Your task to perform on an android device: install app "DoorDash - Food Delivery" Image 0: 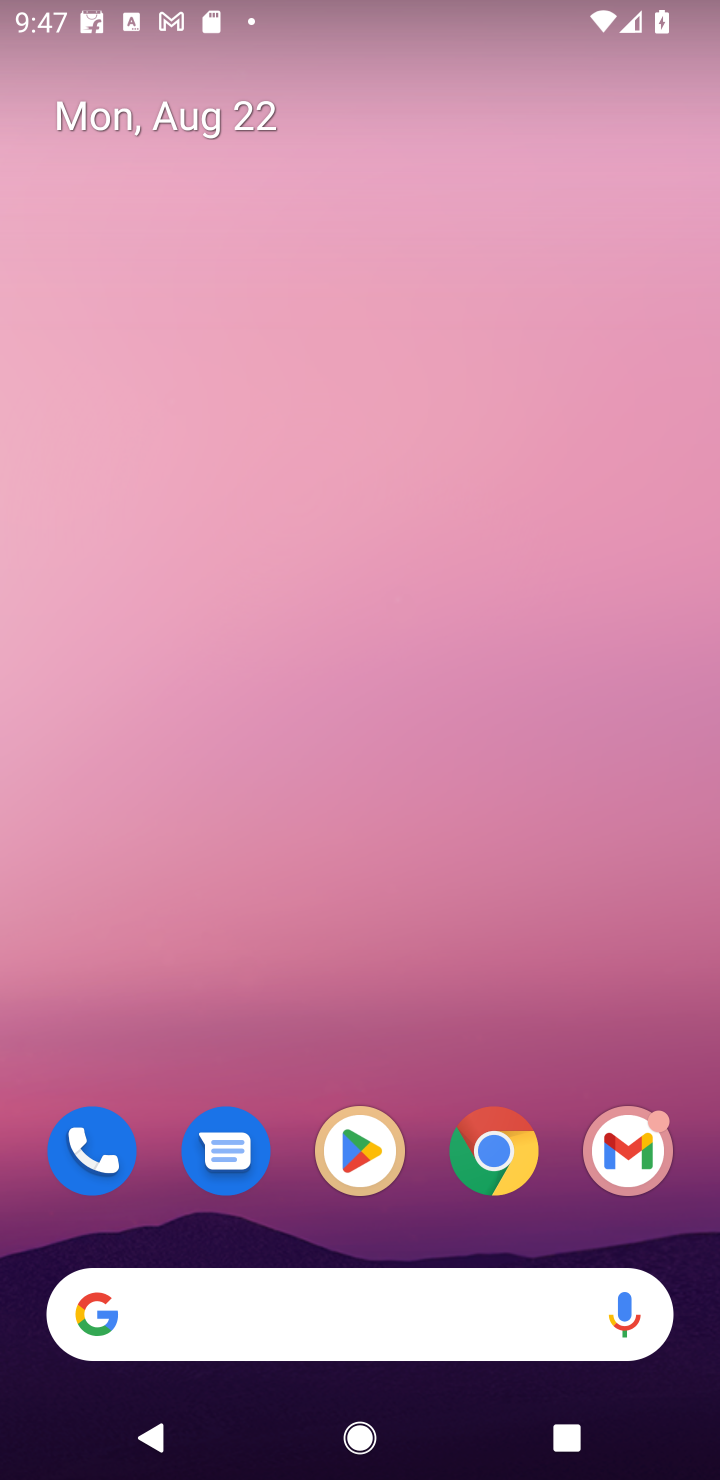
Step 0: click (346, 1163)
Your task to perform on an android device: install app "DoorDash - Food Delivery" Image 1: 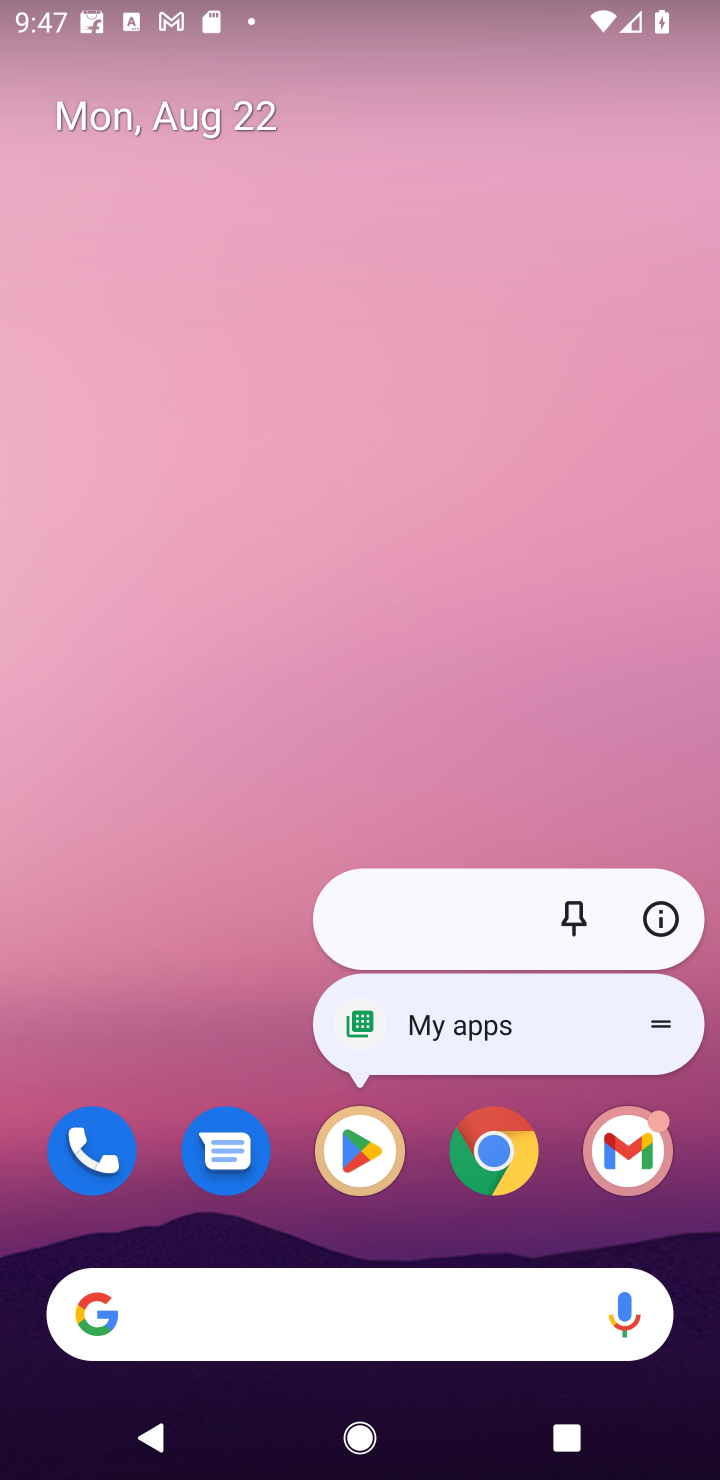
Step 1: click (358, 1153)
Your task to perform on an android device: install app "DoorDash - Food Delivery" Image 2: 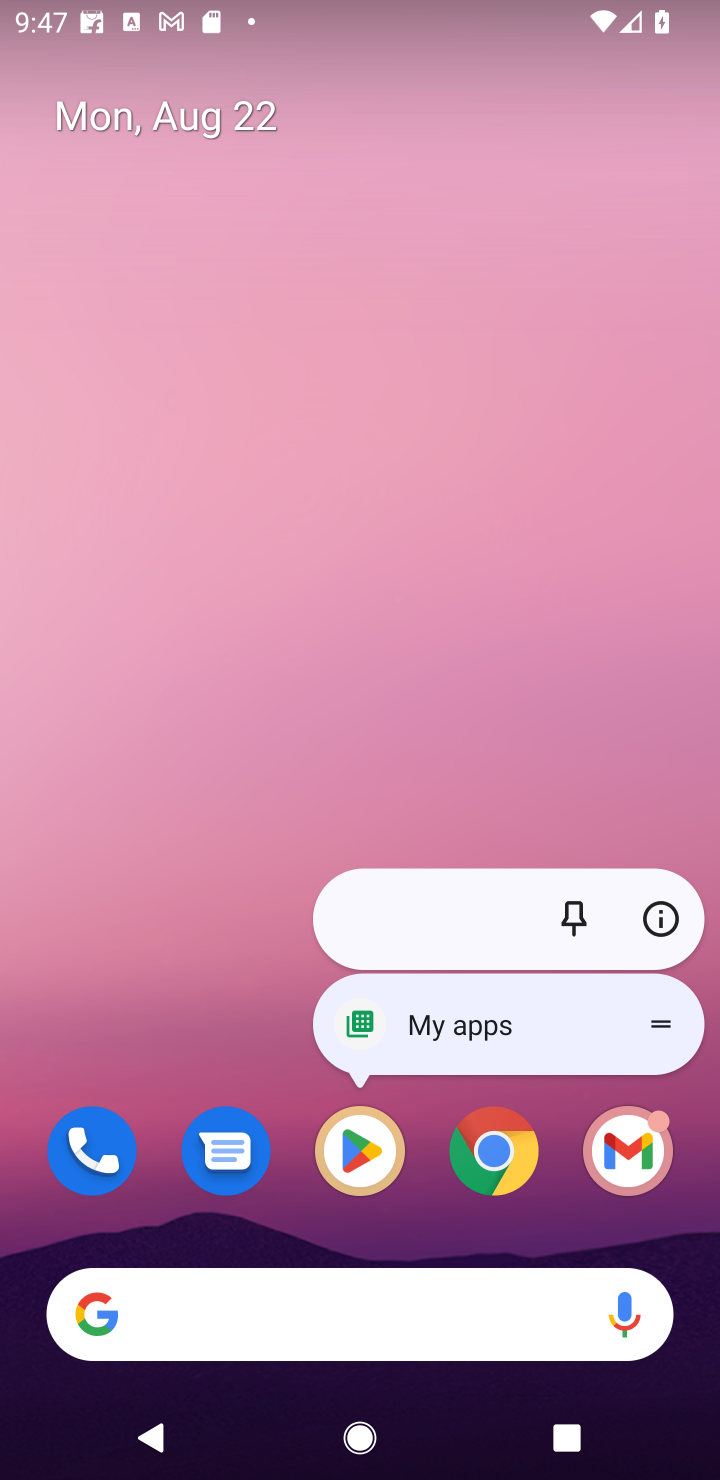
Step 2: click (359, 1159)
Your task to perform on an android device: install app "DoorDash - Food Delivery" Image 3: 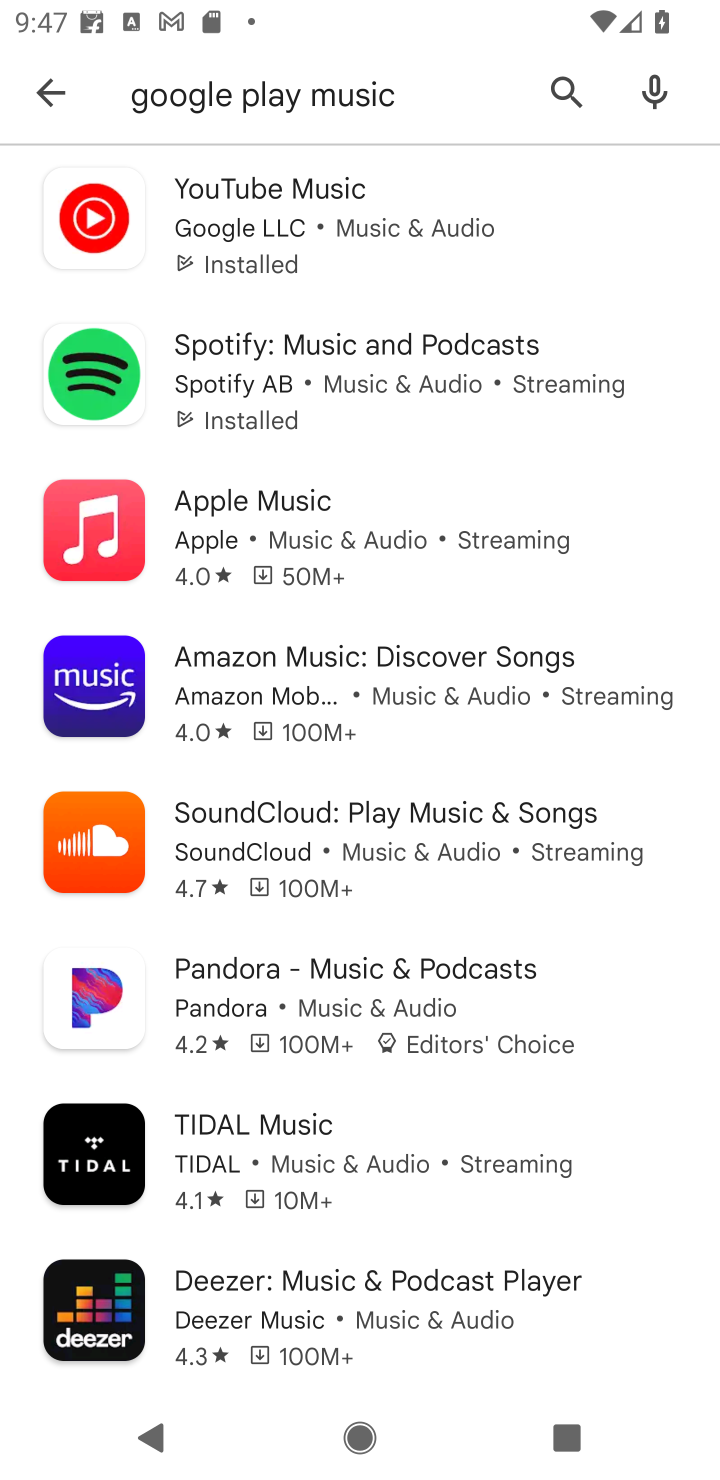
Step 3: click (555, 87)
Your task to perform on an android device: install app "DoorDash - Food Delivery" Image 4: 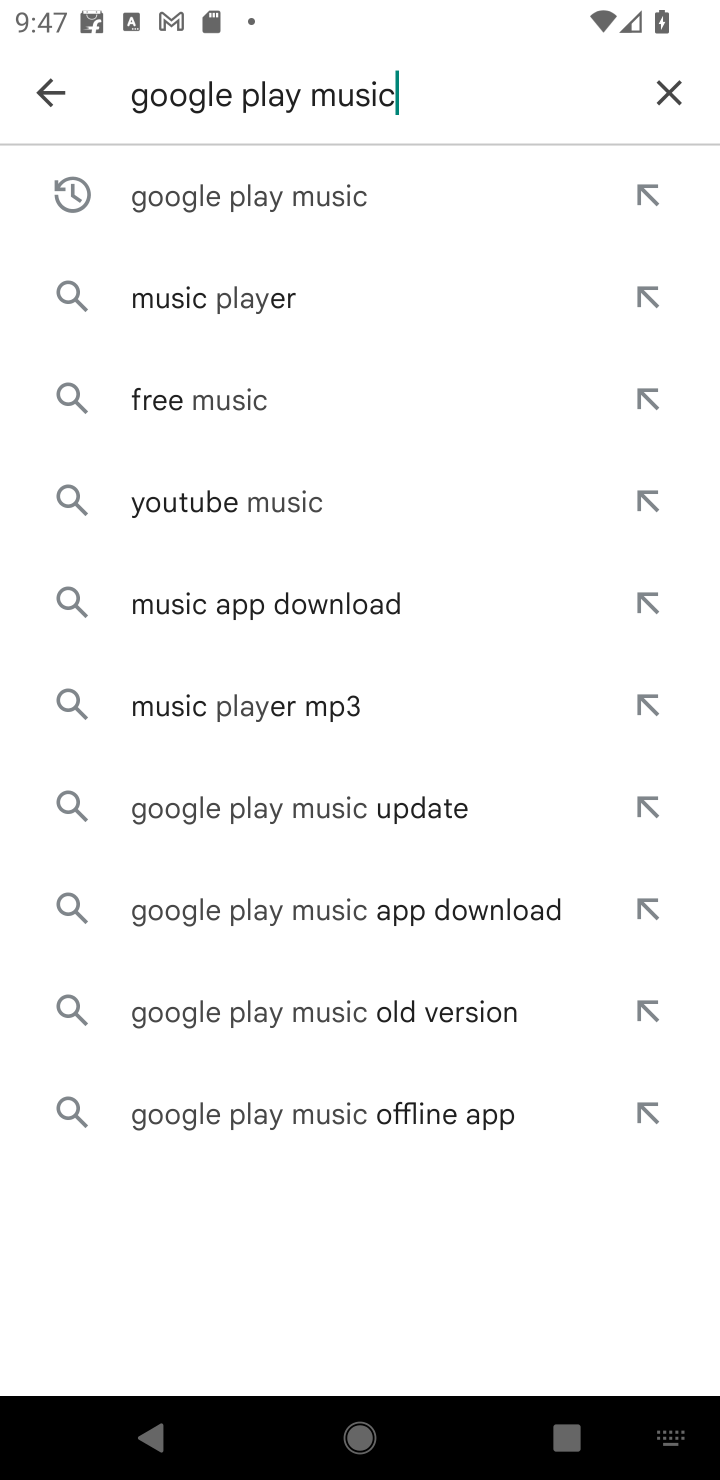
Step 4: click (671, 67)
Your task to perform on an android device: install app "DoorDash - Food Delivery" Image 5: 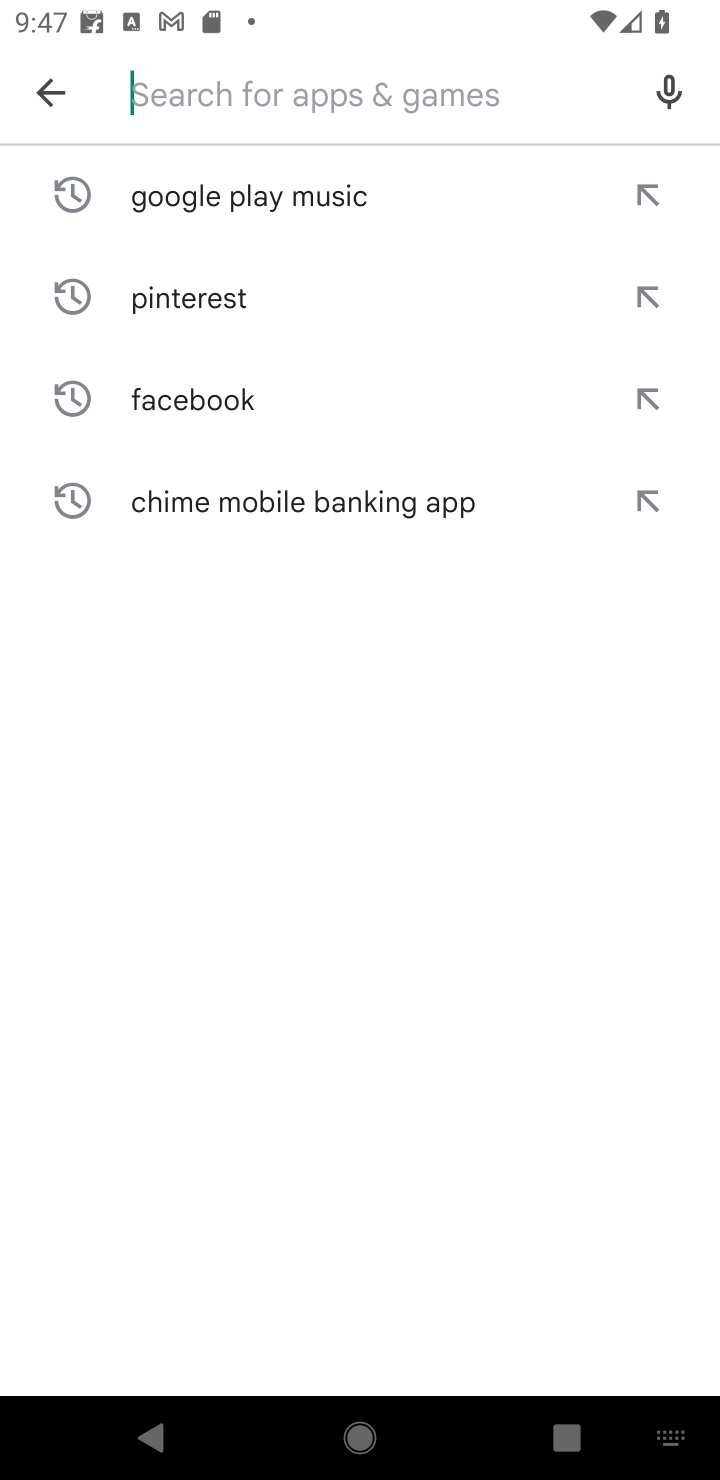
Step 5: type "DoorDash - Food Delivery"
Your task to perform on an android device: install app "DoorDash - Food Delivery" Image 6: 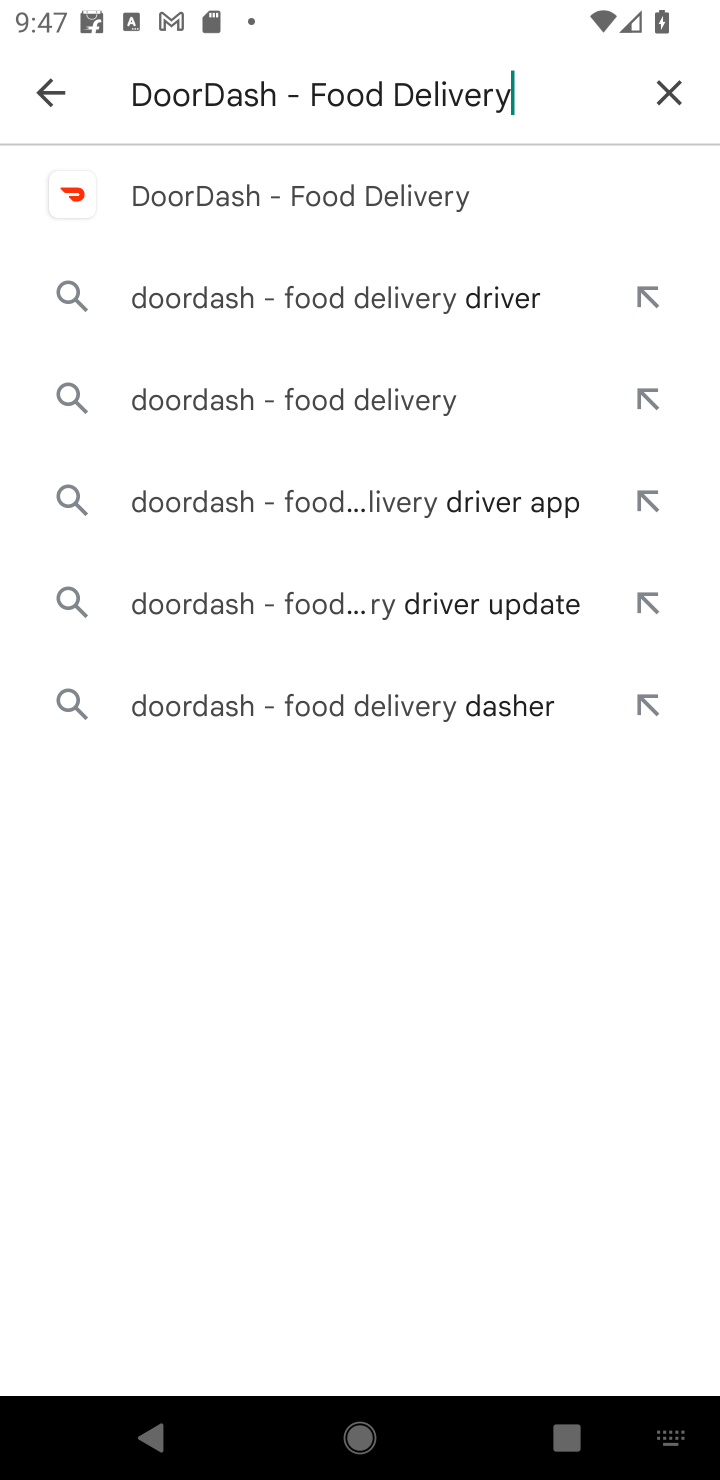
Step 6: click (234, 188)
Your task to perform on an android device: install app "DoorDash - Food Delivery" Image 7: 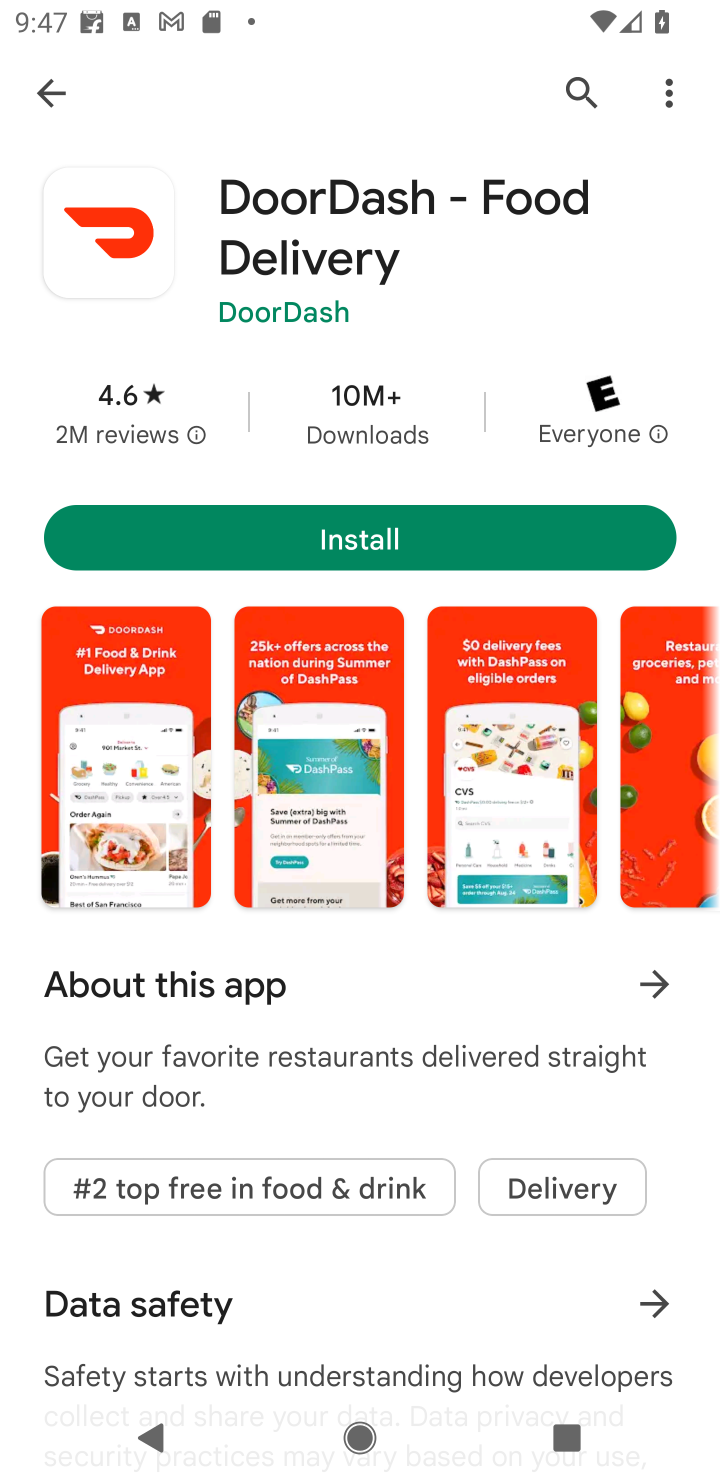
Step 7: click (382, 529)
Your task to perform on an android device: install app "DoorDash - Food Delivery" Image 8: 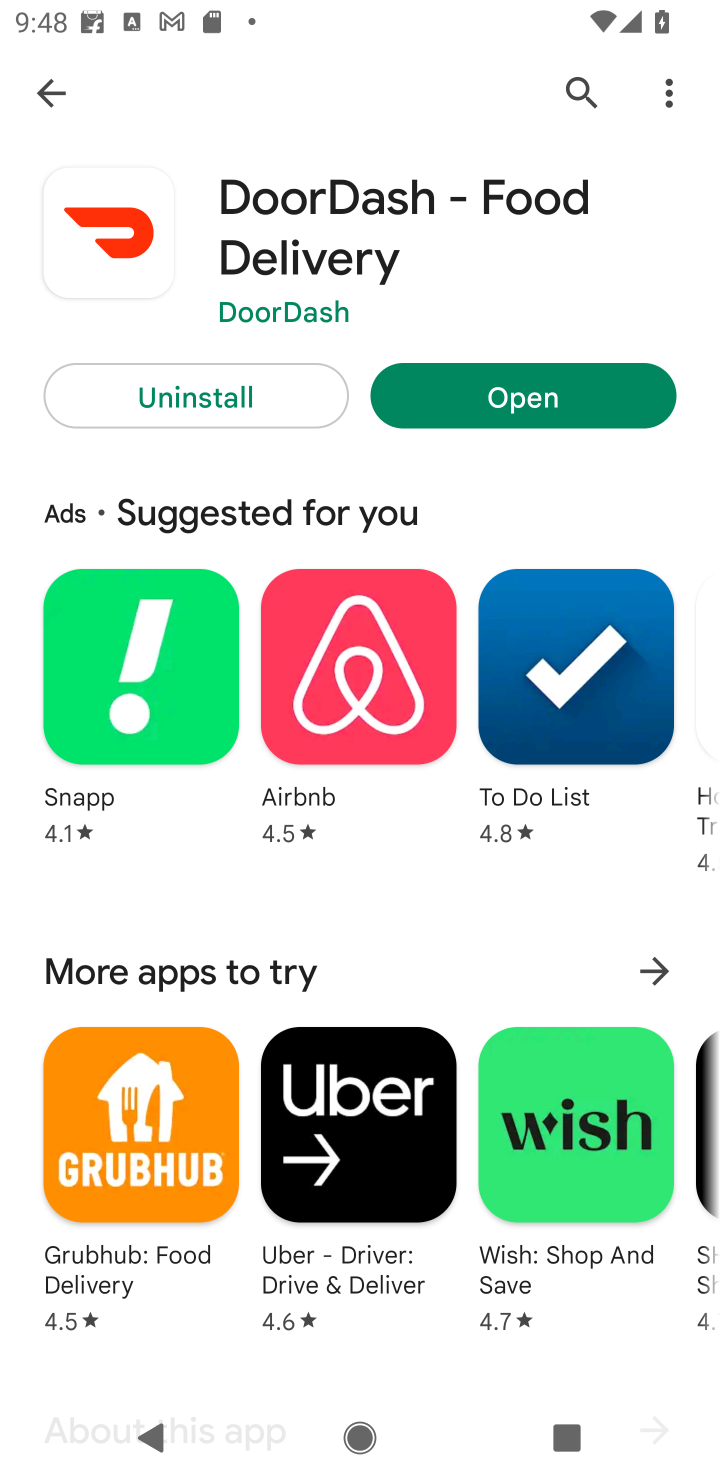
Step 8: task complete